Your task to perform on an android device: Open Google Image 0: 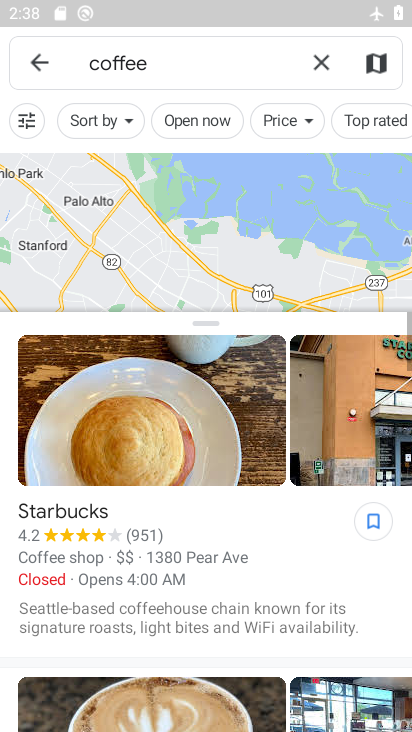
Step 0: press home button
Your task to perform on an android device: Open Google Image 1: 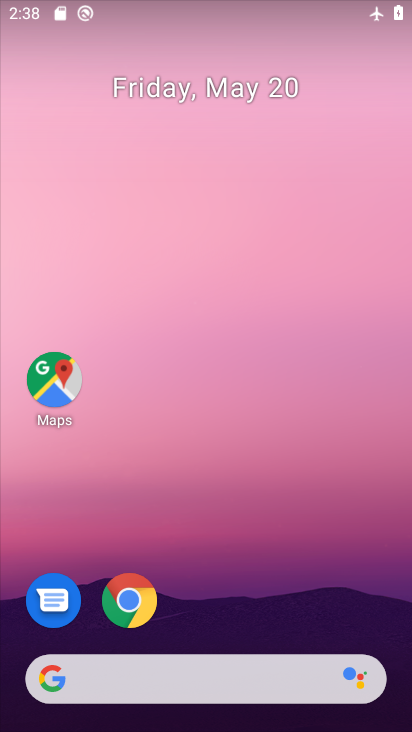
Step 1: drag from (262, 492) to (179, 46)
Your task to perform on an android device: Open Google Image 2: 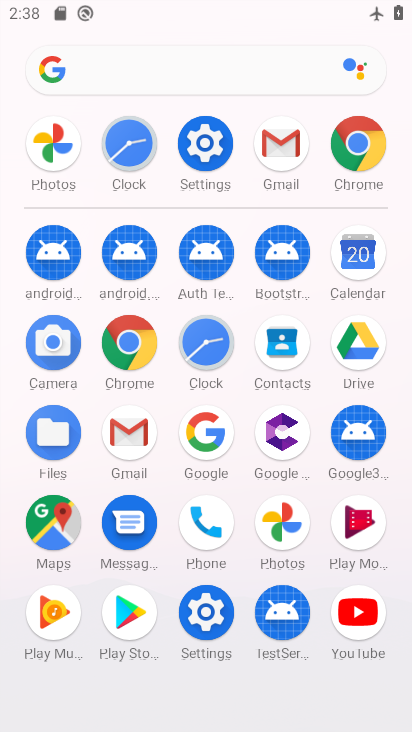
Step 2: click (213, 439)
Your task to perform on an android device: Open Google Image 3: 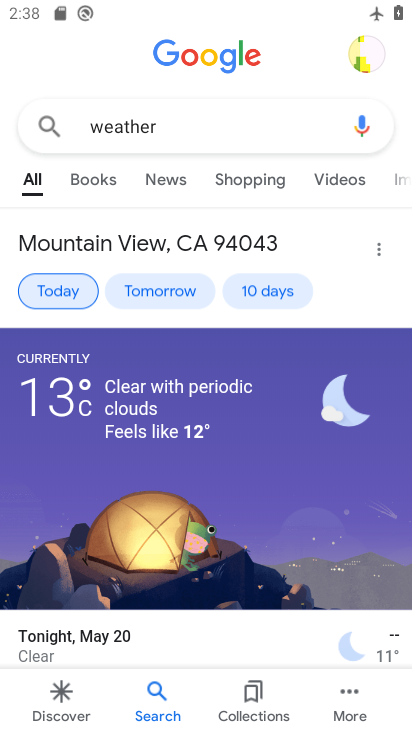
Step 3: task complete